Your task to perform on an android device: turn on showing notifications on the lock screen Image 0: 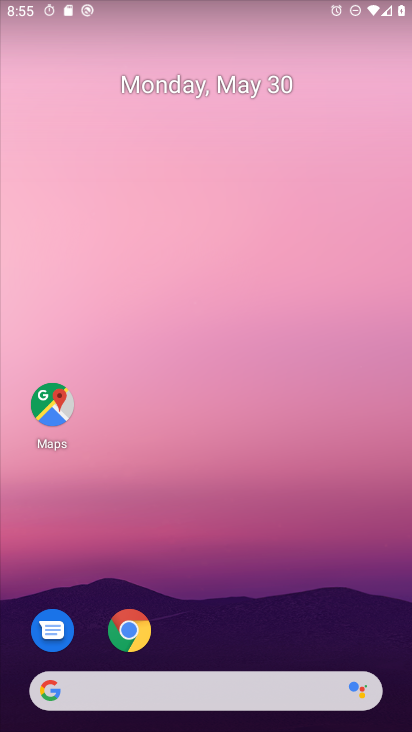
Step 0: drag from (346, 617) to (251, 54)
Your task to perform on an android device: turn on showing notifications on the lock screen Image 1: 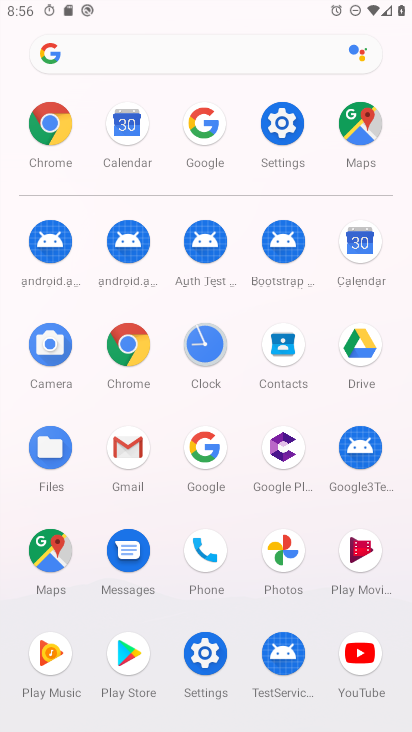
Step 1: click (286, 124)
Your task to perform on an android device: turn on showing notifications on the lock screen Image 2: 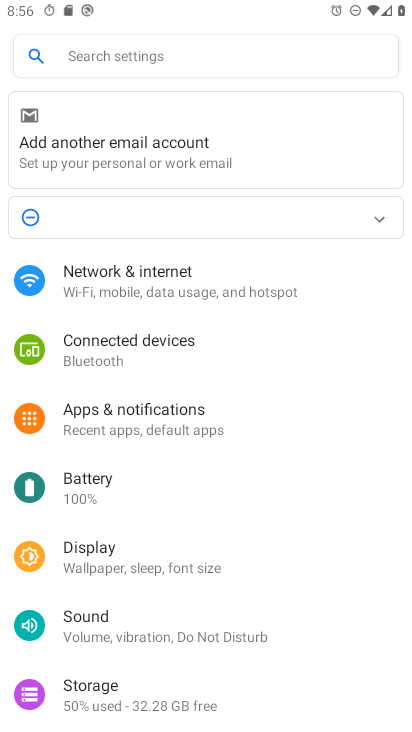
Step 2: click (227, 429)
Your task to perform on an android device: turn on showing notifications on the lock screen Image 3: 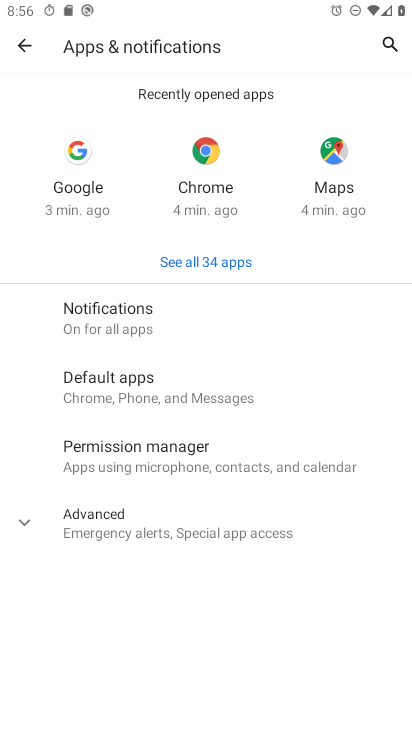
Step 3: click (119, 331)
Your task to perform on an android device: turn on showing notifications on the lock screen Image 4: 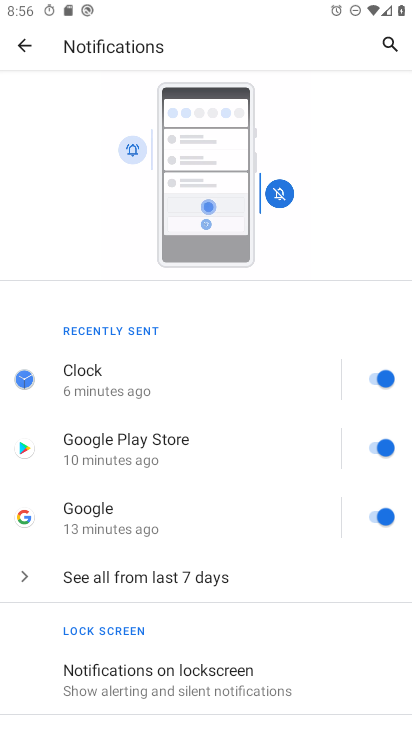
Step 4: click (279, 680)
Your task to perform on an android device: turn on showing notifications on the lock screen Image 5: 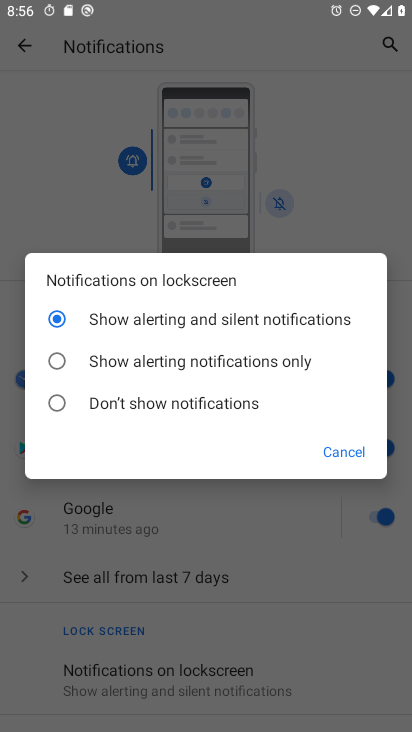
Step 5: task complete